Your task to perform on an android device: Open Chrome and go to settings Image 0: 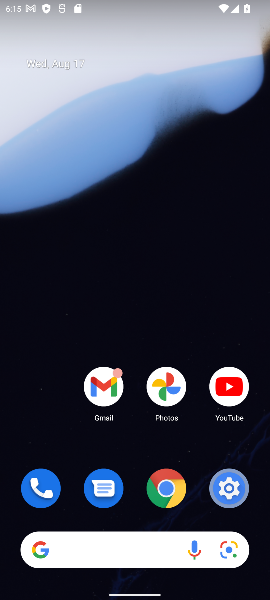
Step 0: drag from (183, 488) to (27, 48)
Your task to perform on an android device: Open Chrome and go to settings Image 1: 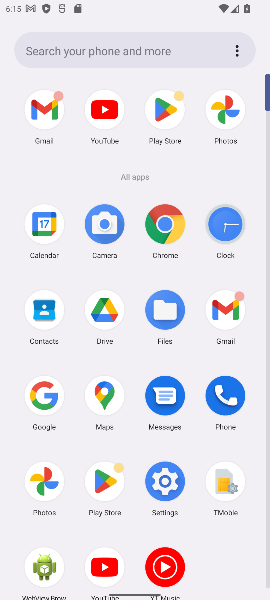
Step 1: click (176, 495)
Your task to perform on an android device: Open Chrome and go to settings Image 2: 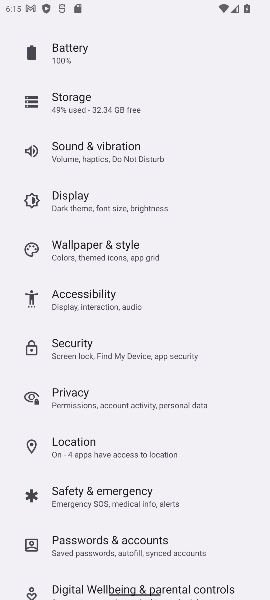
Step 2: press back button
Your task to perform on an android device: Open Chrome and go to settings Image 3: 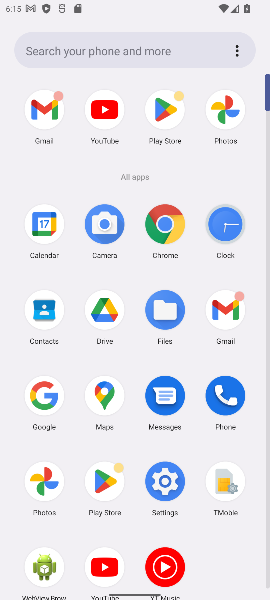
Step 3: click (143, 217)
Your task to perform on an android device: Open Chrome and go to settings Image 4: 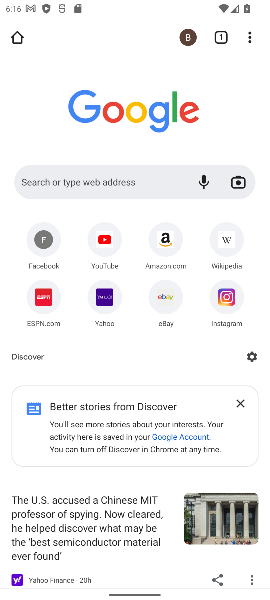
Step 4: task complete